Your task to perform on an android device: turn off smart reply in the gmail app Image 0: 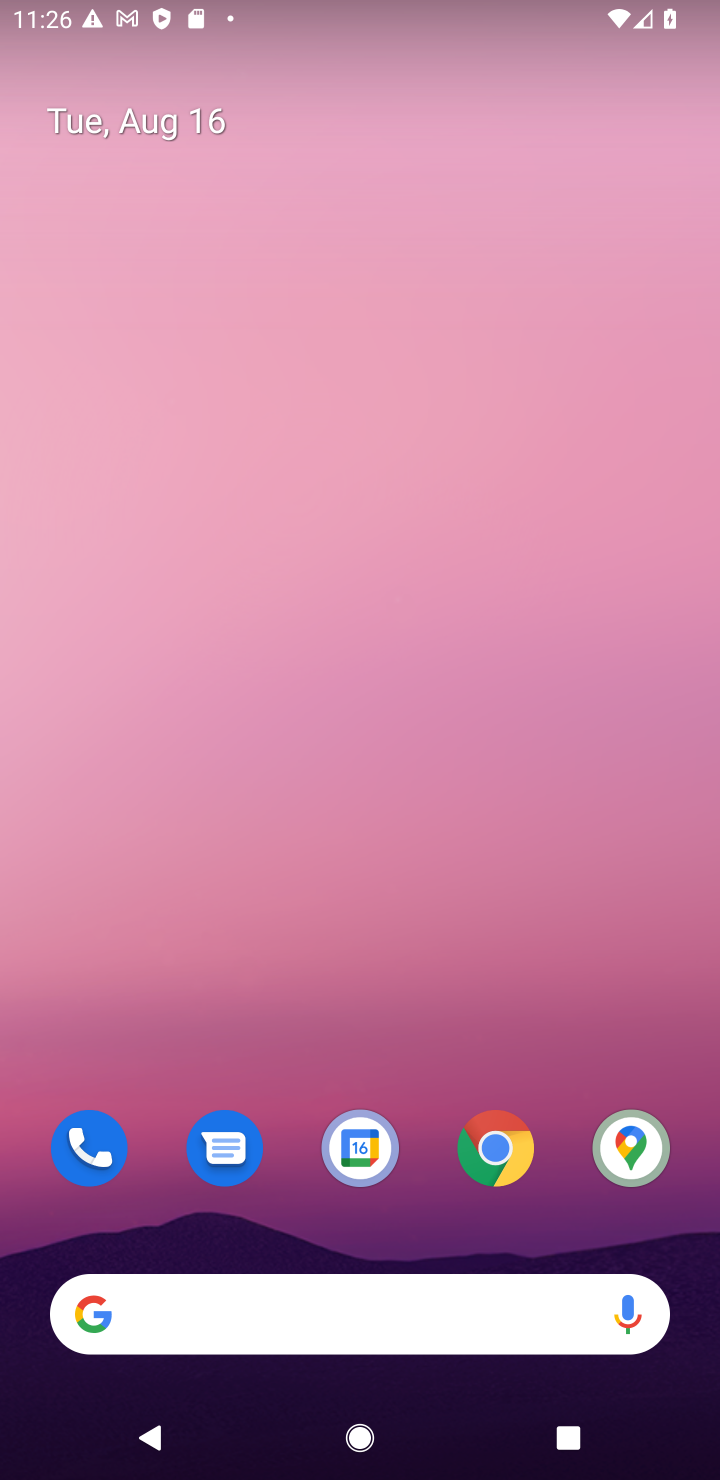
Step 0: drag from (367, 1059) to (44, 643)
Your task to perform on an android device: turn off smart reply in the gmail app Image 1: 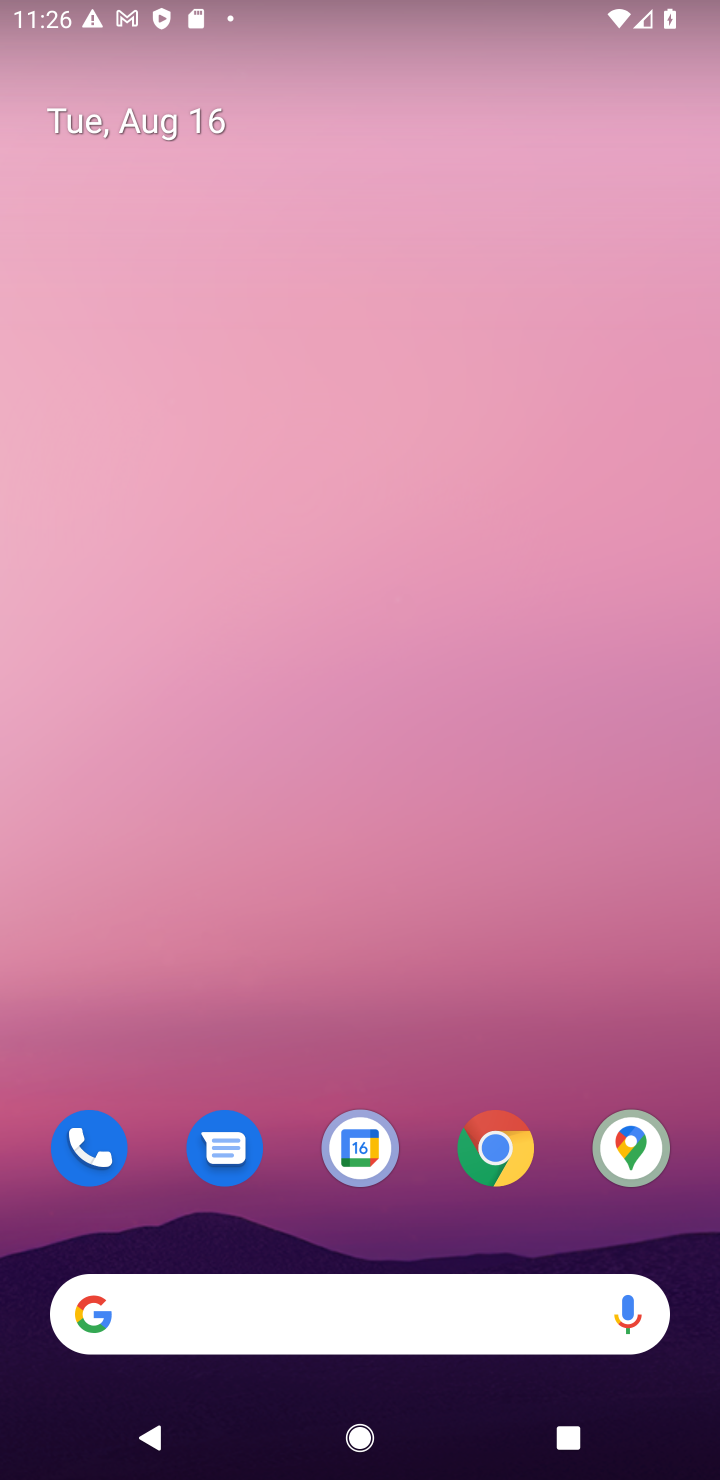
Step 1: drag from (391, 962) to (325, 142)
Your task to perform on an android device: turn off smart reply in the gmail app Image 2: 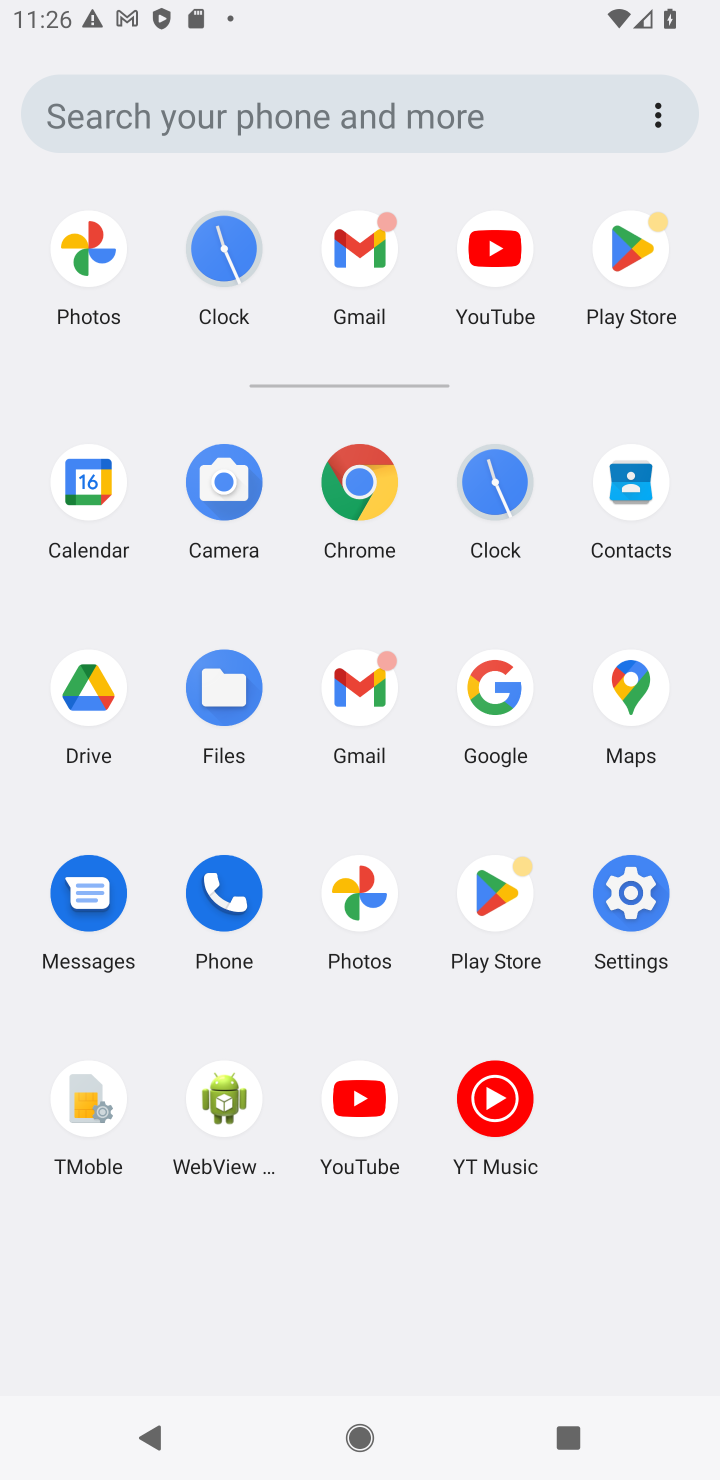
Step 2: click (367, 688)
Your task to perform on an android device: turn off smart reply in the gmail app Image 3: 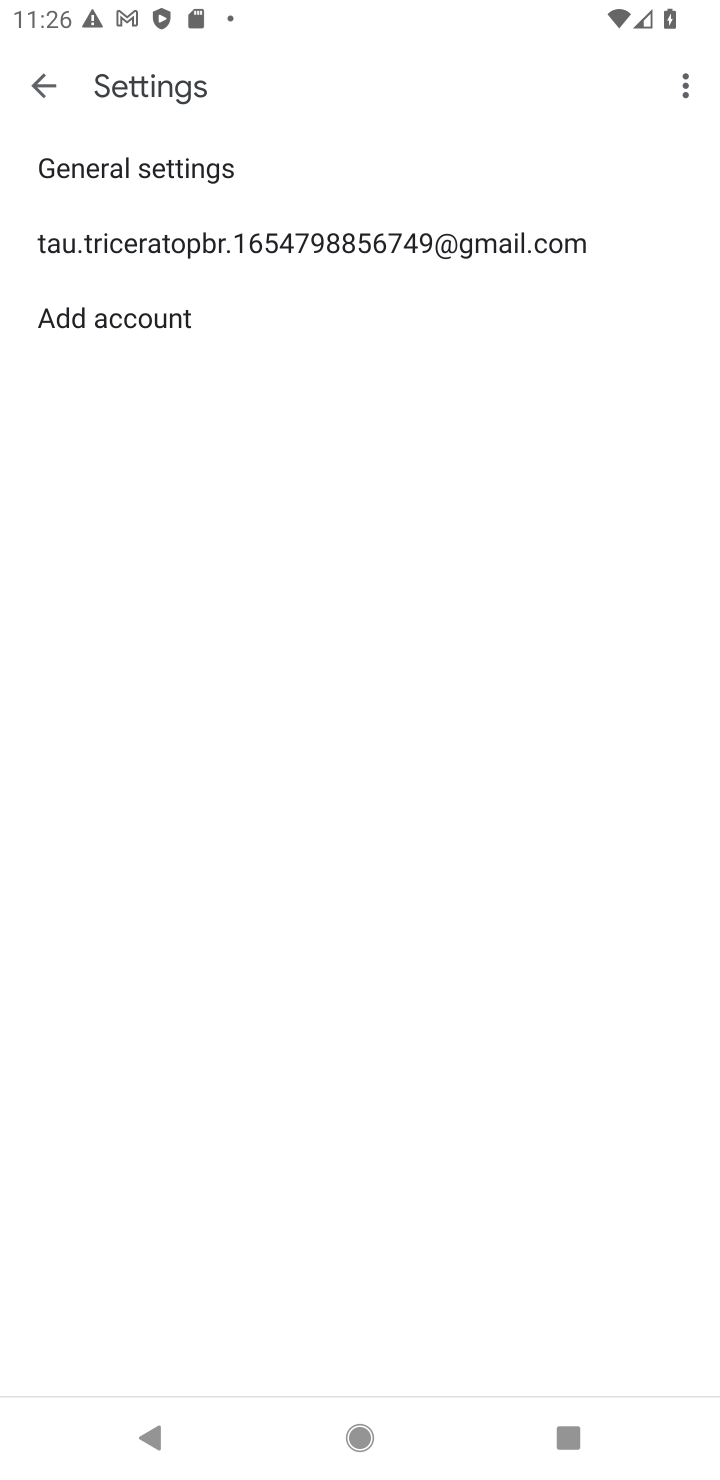
Step 3: click (266, 227)
Your task to perform on an android device: turn off smart reply in the gmail app Image 4: 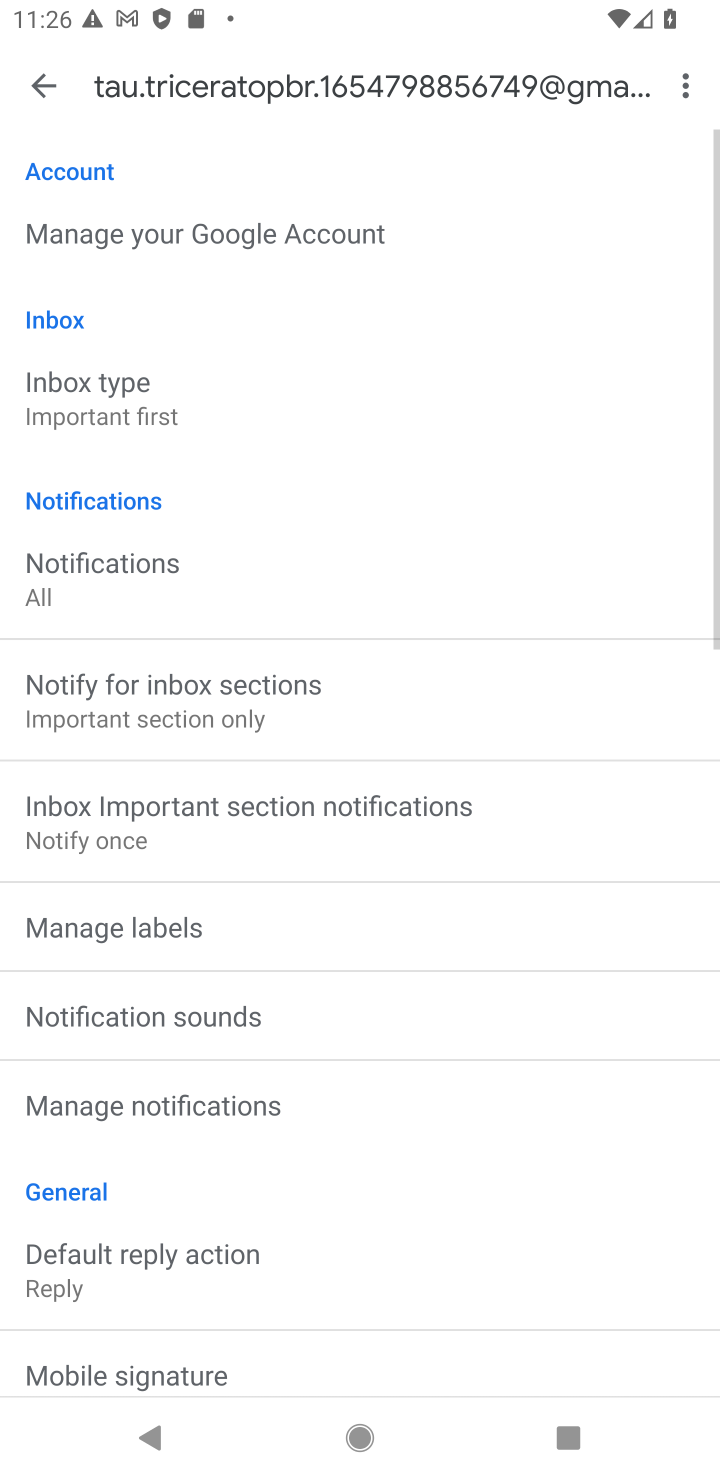
Step 4: drag from (517, 1338) to (401, 236)
Your task to perform on an android device: turn off smart reply in the gmail app Image 5: 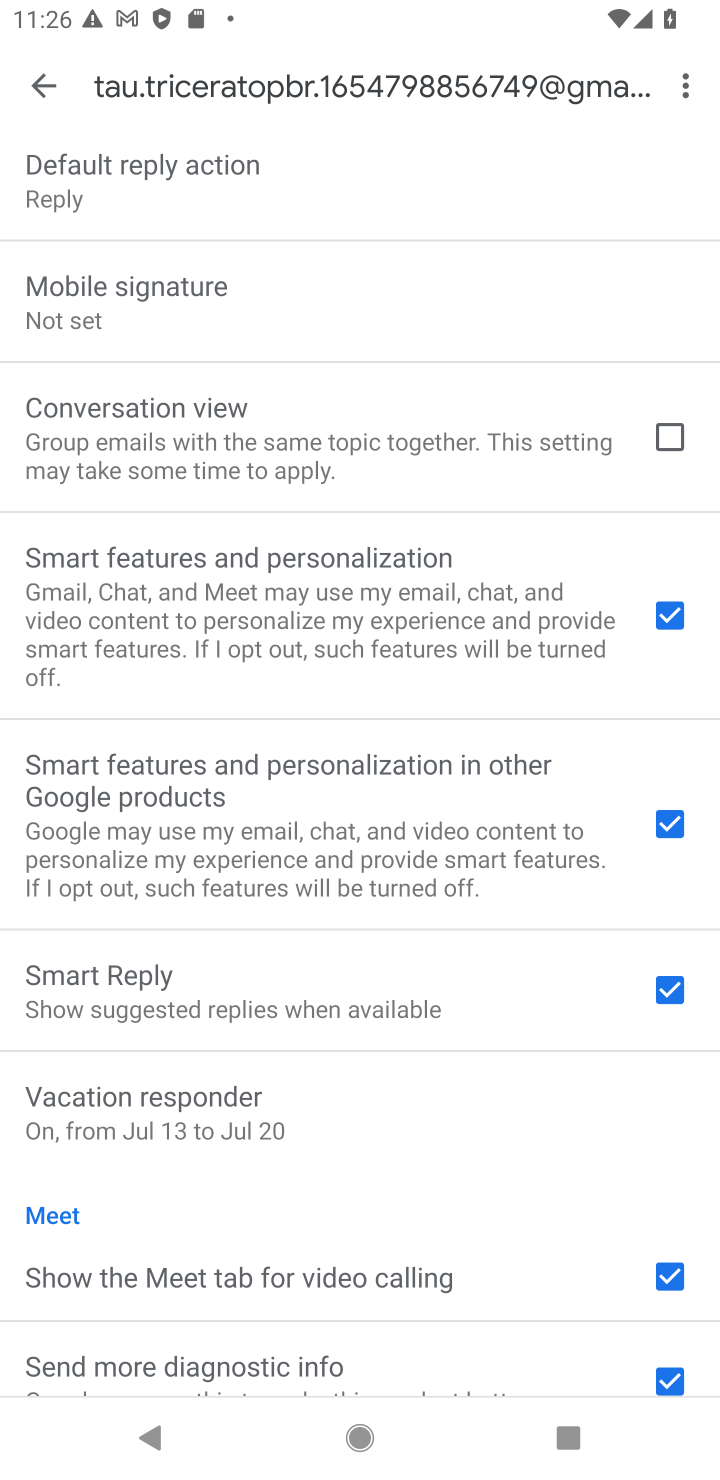
Step 5: click (561, 1004)
Your task to perform on an android device: turn off smart reply in the gmail app Image 6: 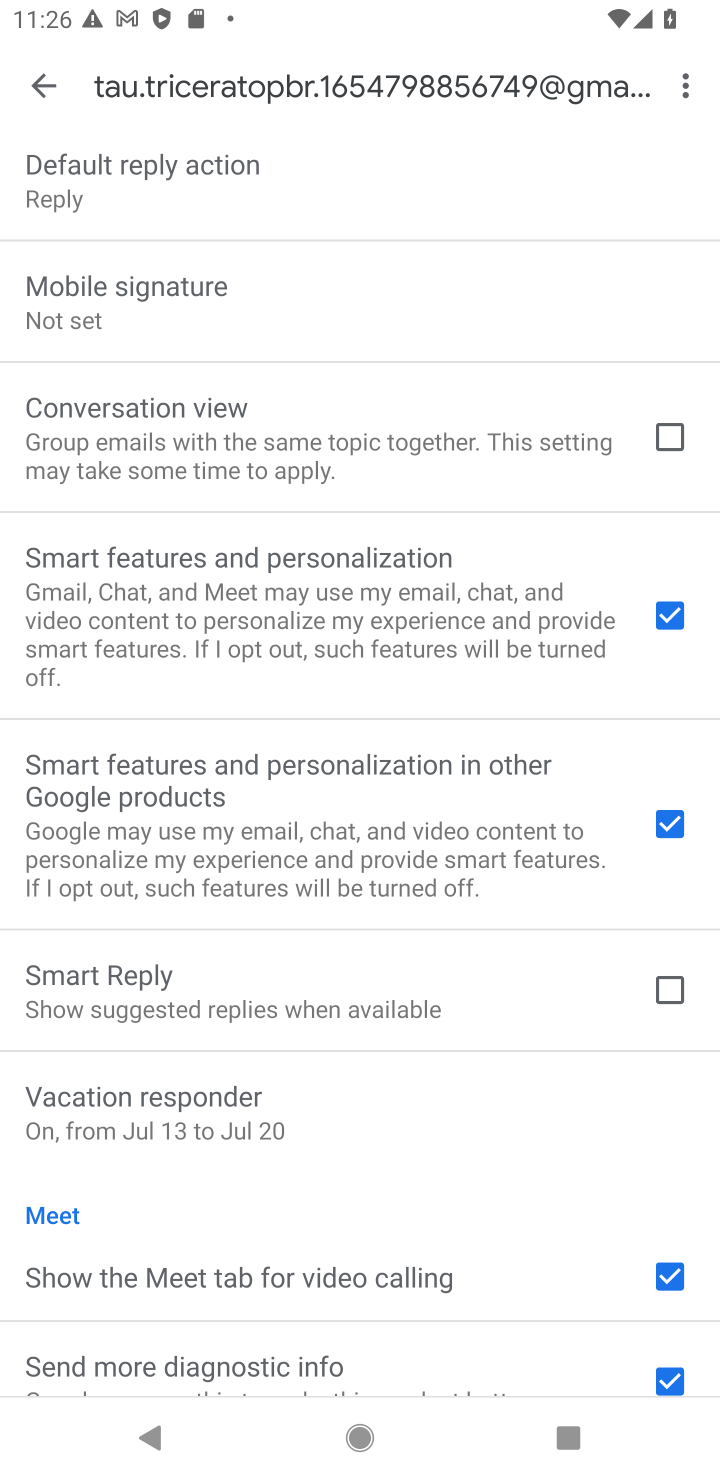
Step 6: task complete